Your task to perform on an android device: refresh tabs in the chrome app Image 0: 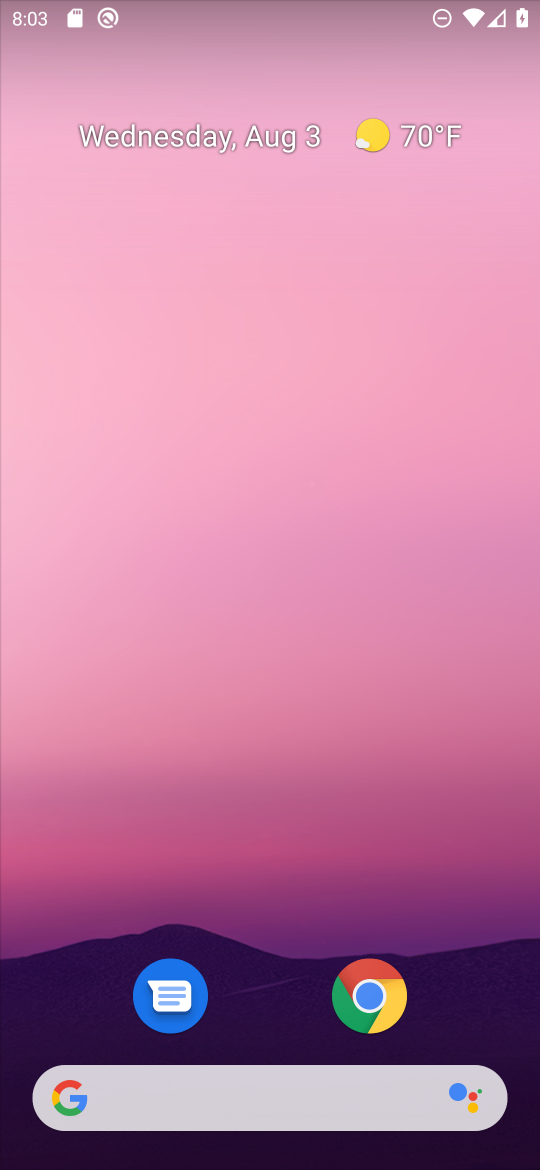
Step 0: click (369, 990)
Your task to perform on an android device: refresh tabs in the chrome app Image 1: 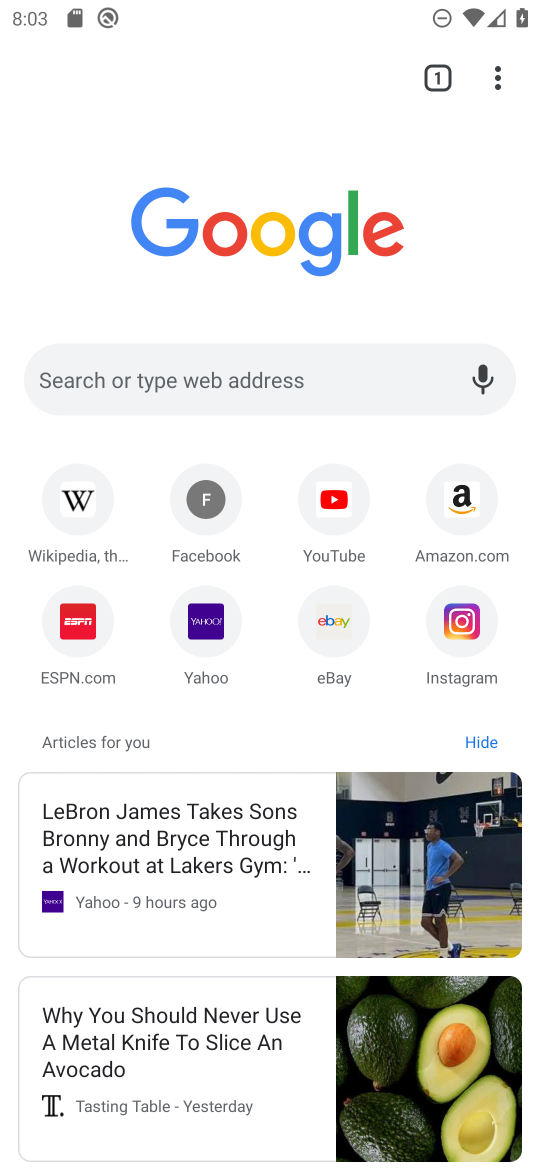
Step 1: click (494, 76)
Your task to perform on an android device: refresh tabs in the chrome app Image 2: 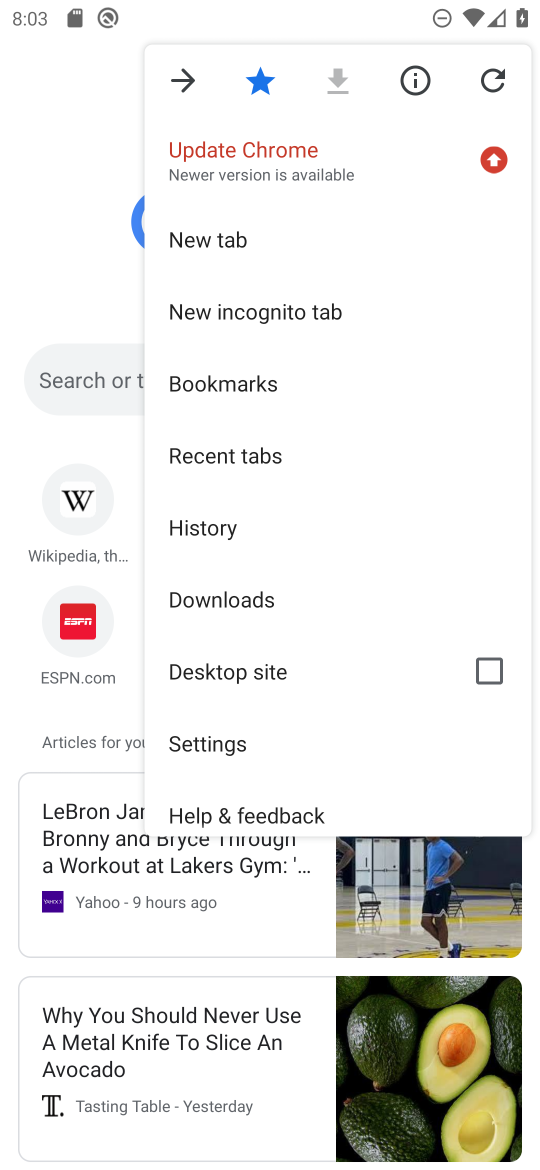
Step 2: click (482, 66)
Your task to perform on an android device: refresh tabs in the chrome app Image 3: 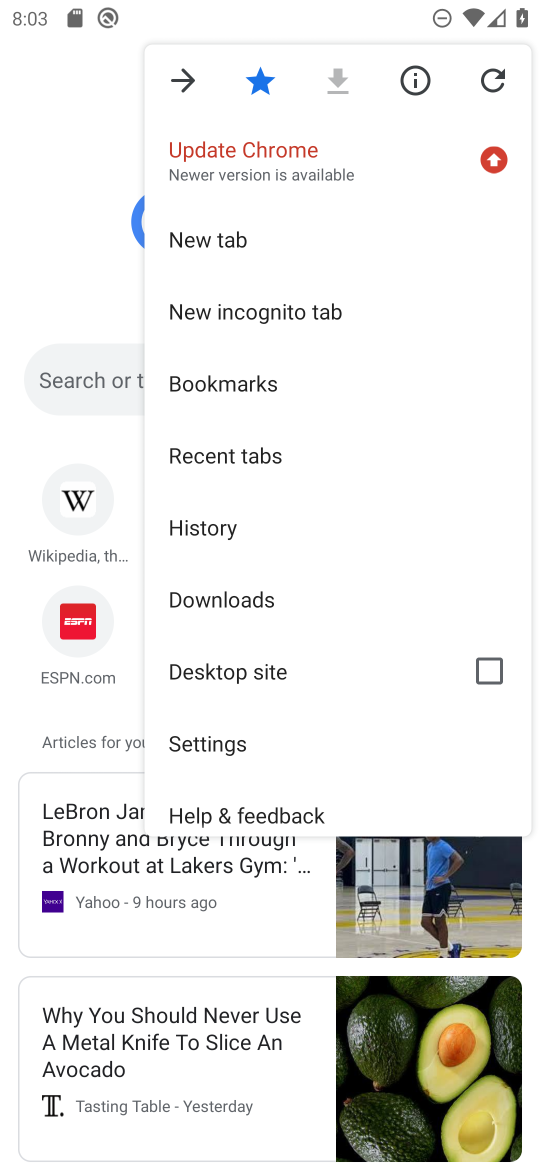
Step 3: click (480, 68)
Your task to perform on an android device: refresh tabs in the chrome app Image 4: 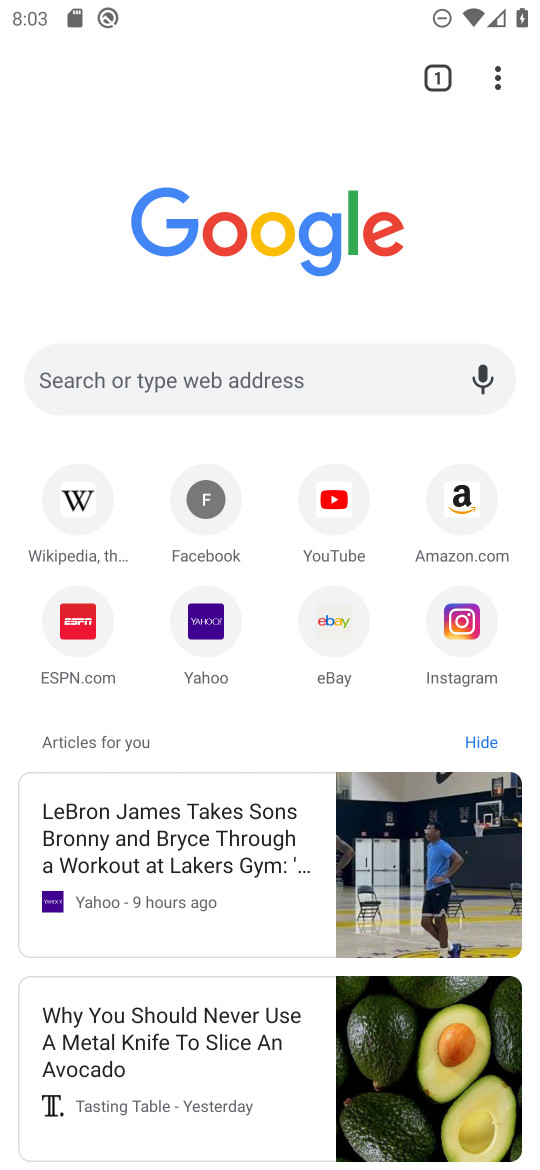
Step 4: task complete